Your task to perform on an android device: Clear the cart on bestbuy.com. Image 0: 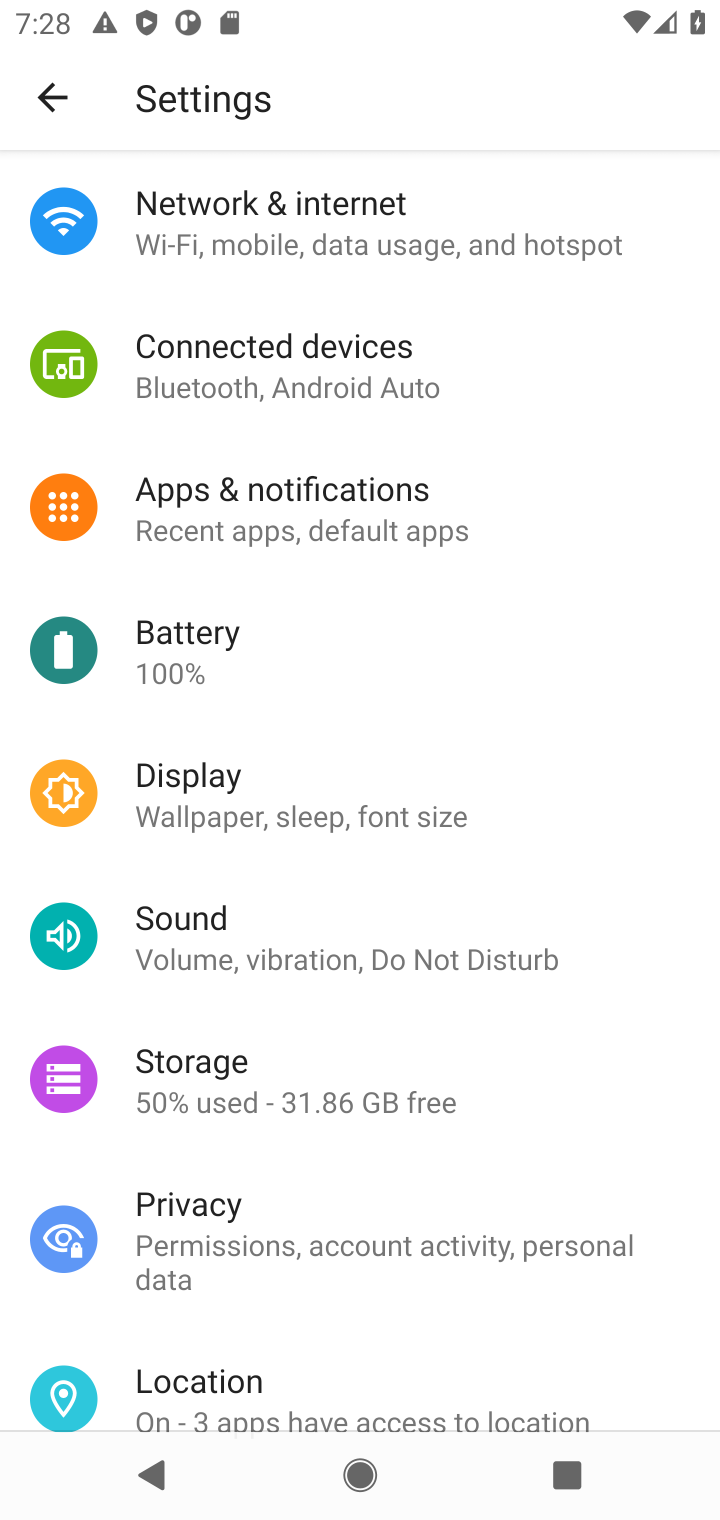
Step 0: press home button
Your task to perform on an android device: Clear the cart on bestbuy.com. Image 1: 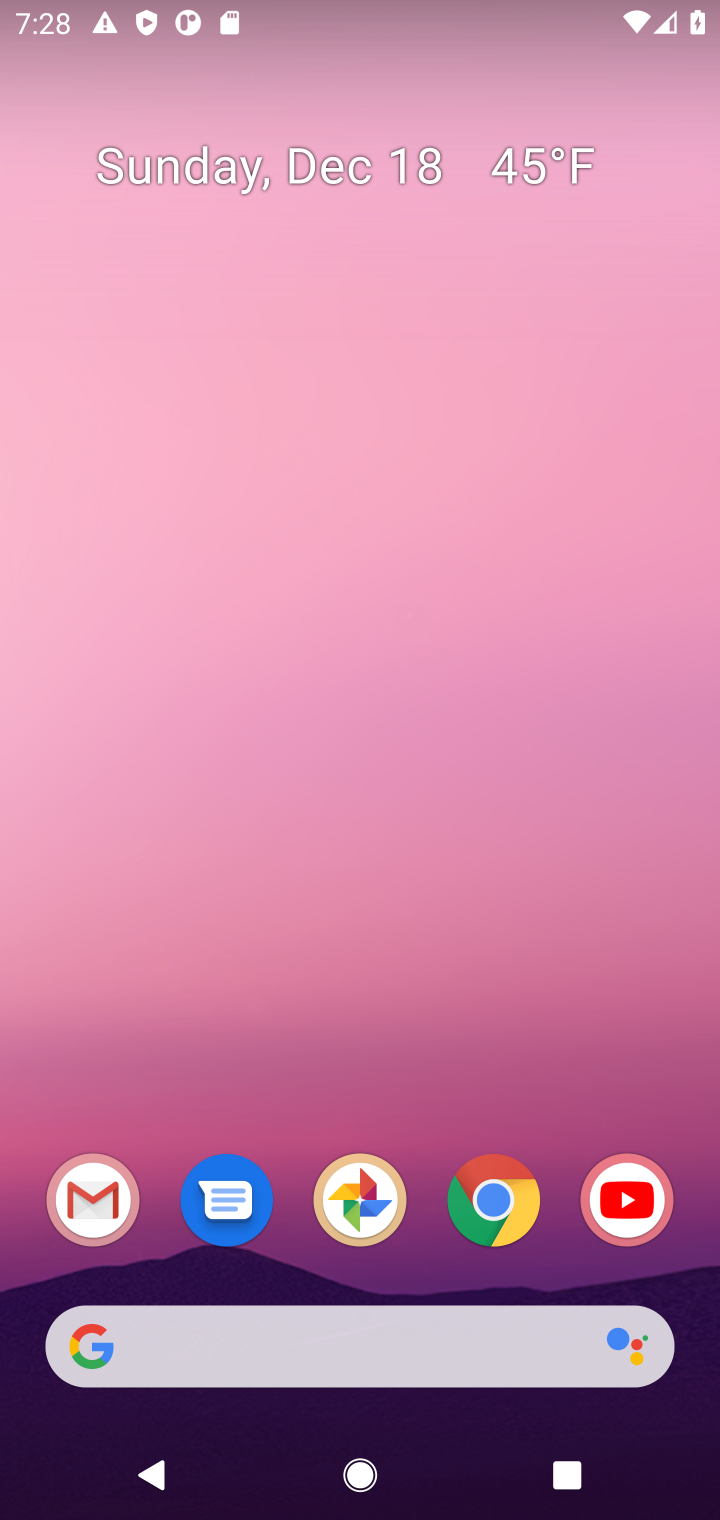
Step 1: click (497, 1217)
Your task to perform on an android device: Clear the cart on bestbuy.com. Image 2: 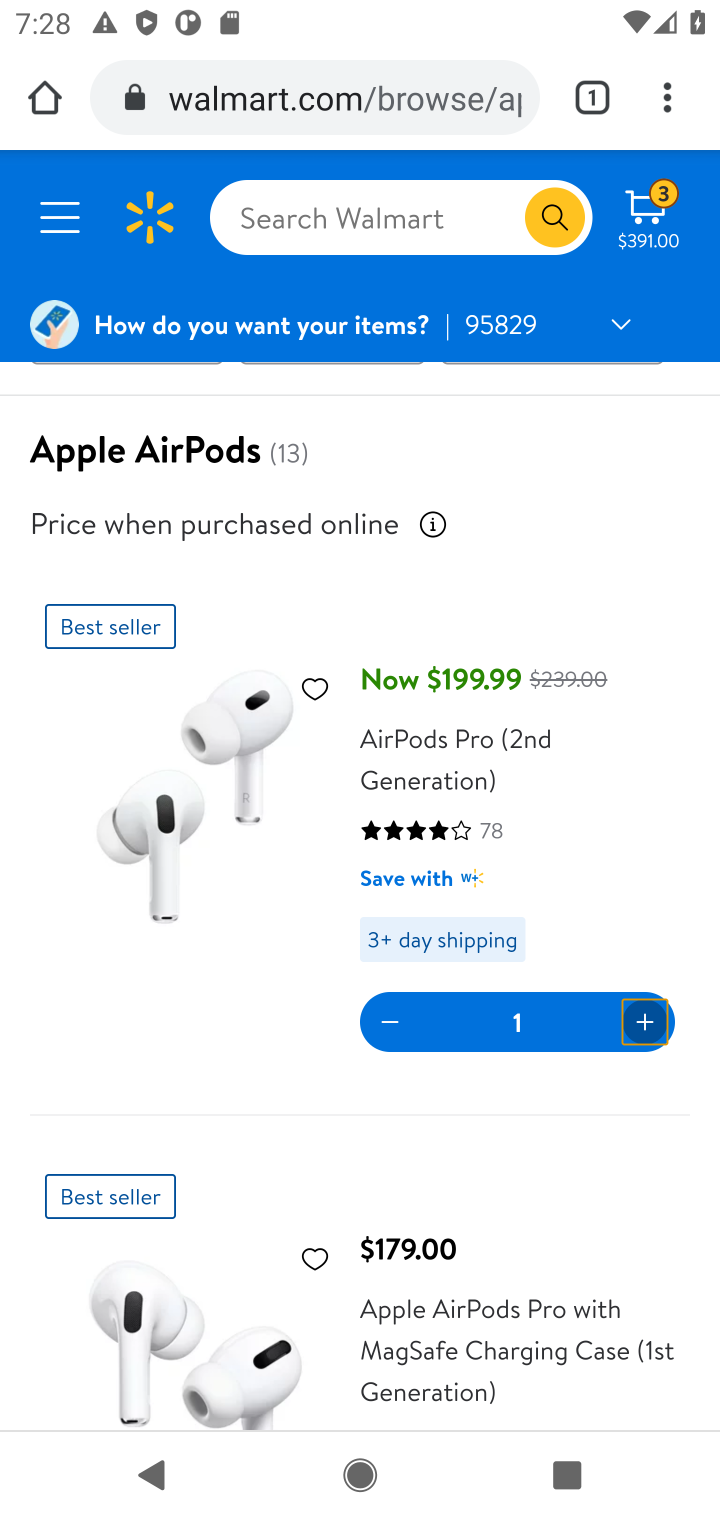
Step 2: click (315, 94)
Your task to perform on an android device: Clear the cart on bestbuy.com. Image 3: 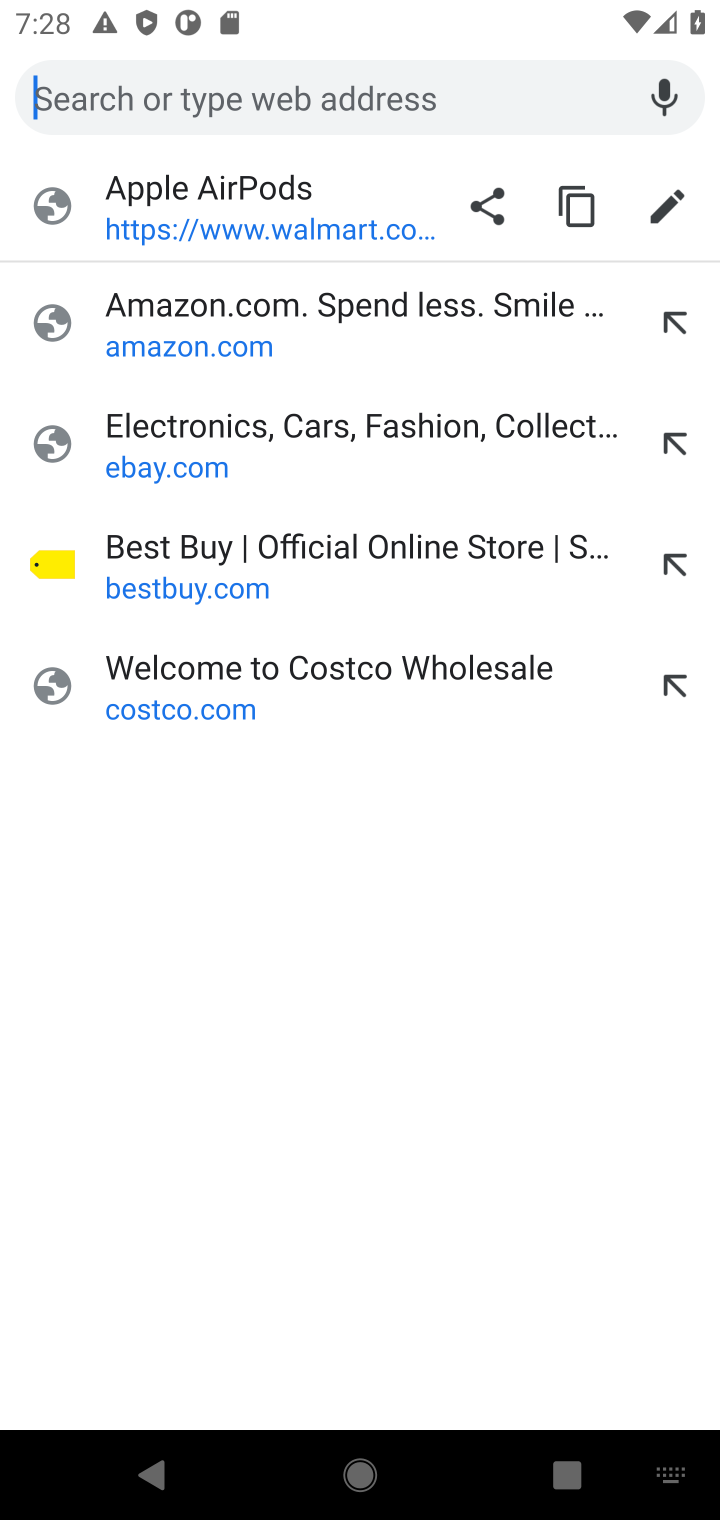
Step 3: click (146, 561)
Your task to perform on an android device: Clear the cart on bestbuy.com. Image 4: 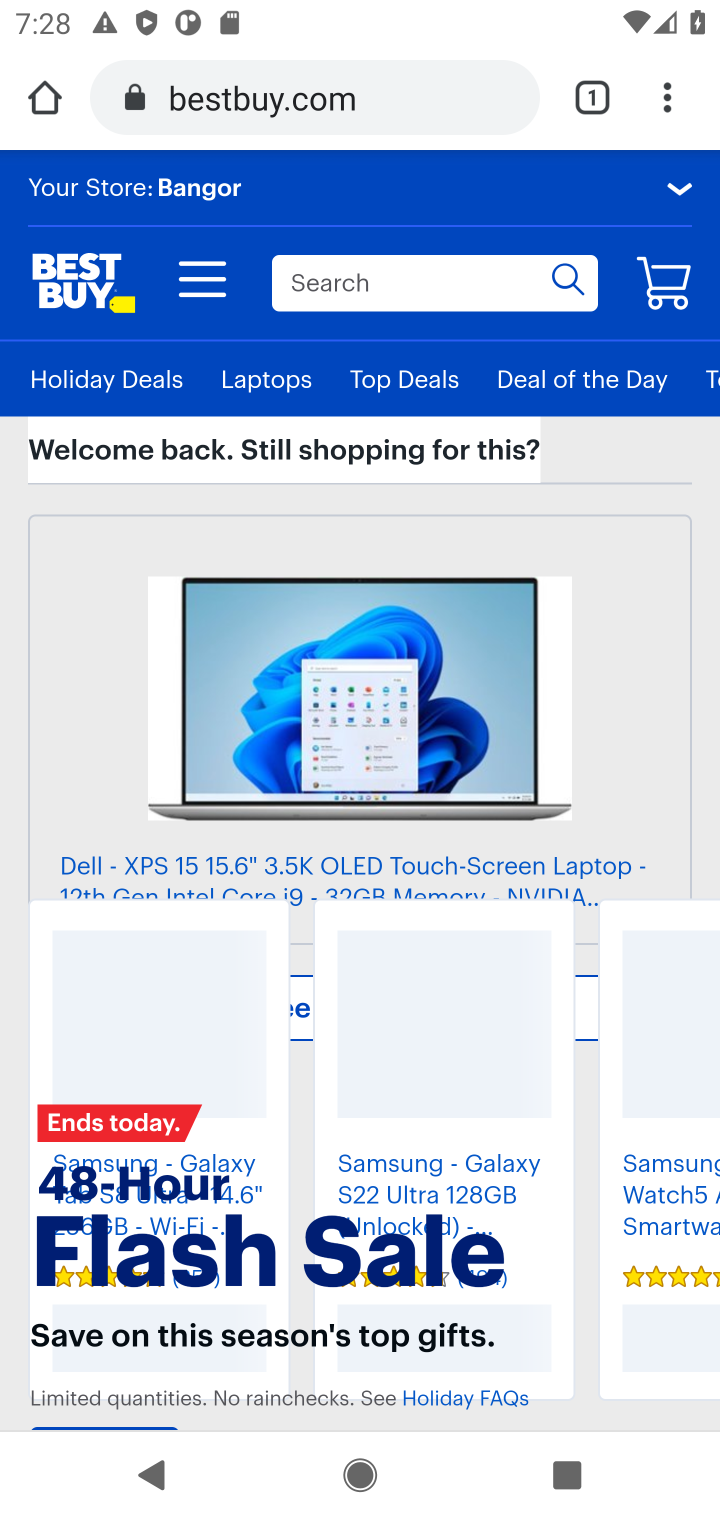
Step 4: click (664, 286)
Your task to perform on an android device: Clear the cart on bestbuy.com. Image 5: 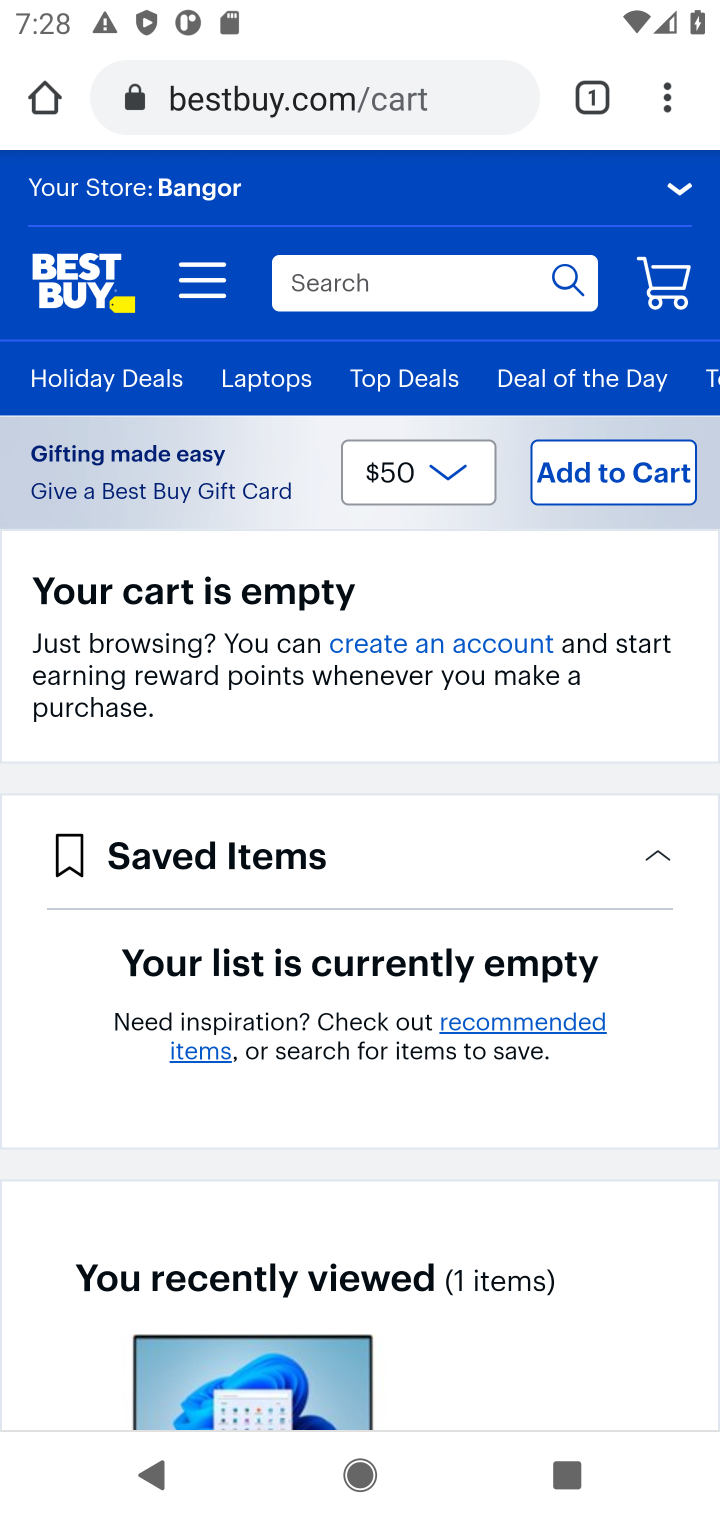
Step 5: task complete